Your task to perform on an android device: change the upload size in google photos Image 0: 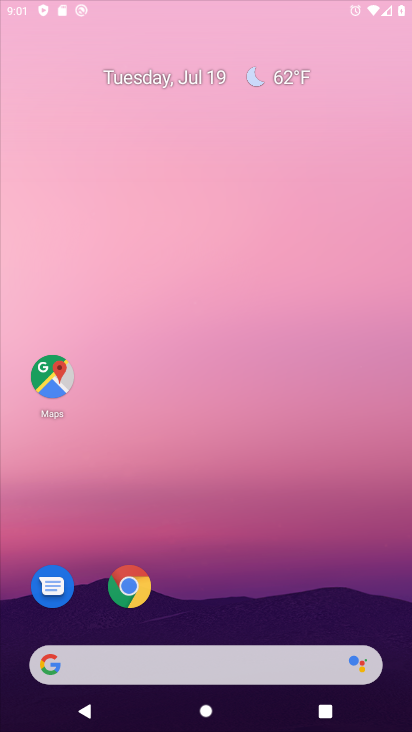
Step 0: click (222, 48)
Your task to perform on an android device: change the upload size in google photos Image 1: 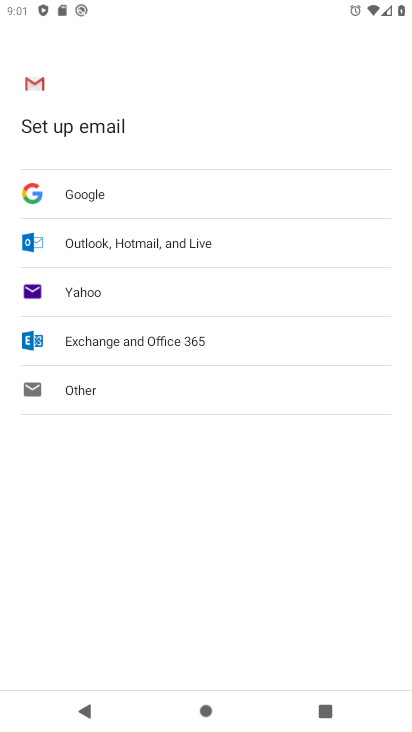
Step 1: press home button
Your task to perform on an android device: change the upload size in google photos Image 2: 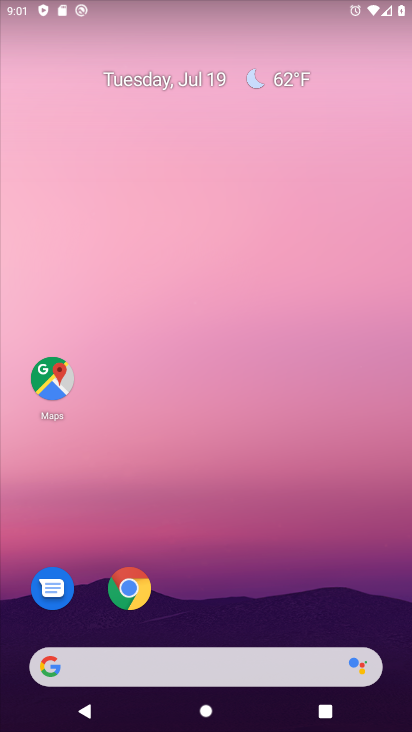
Step 2: drag from (274, 550) to (335, 9)
Your task to perform on an android device: change the upload size in google photos Image 3: 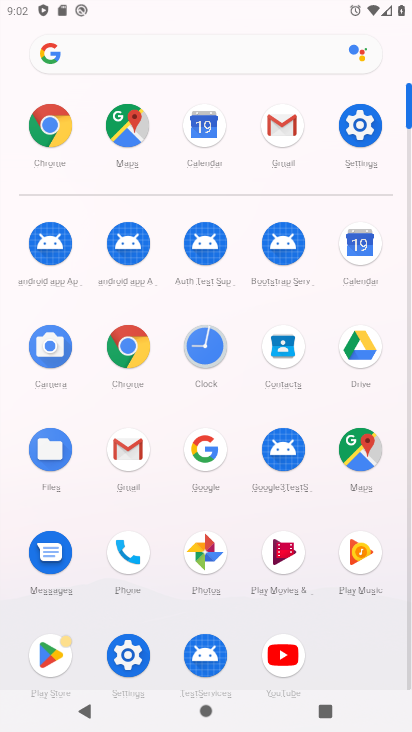
Step 3: click (203, 553)
Your task to perform on an android device: change the upload size in google photos Image 4: 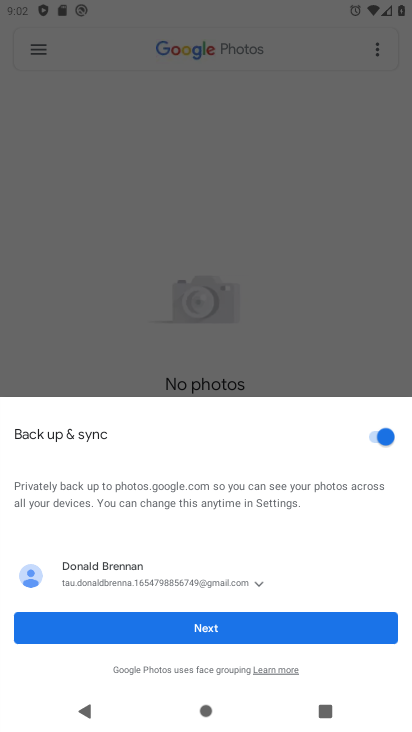
Step 4: click (212, 637)
Your task to perform on an android device: change the upload size in google photos Image 5: 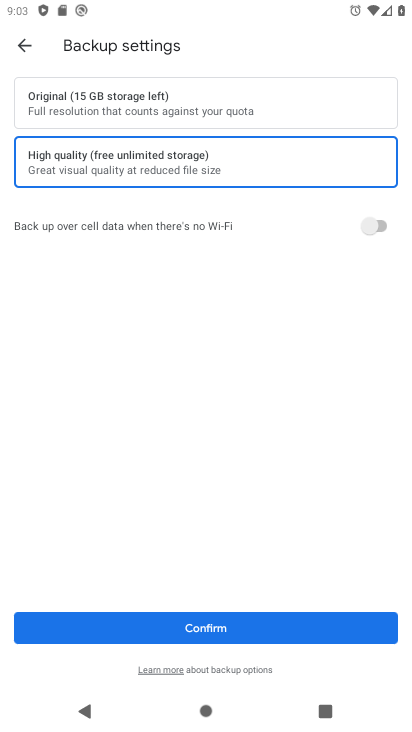
Step 5: click (124, 113)
Your task to perform on an android device: change the upload size in google photos Image 6: 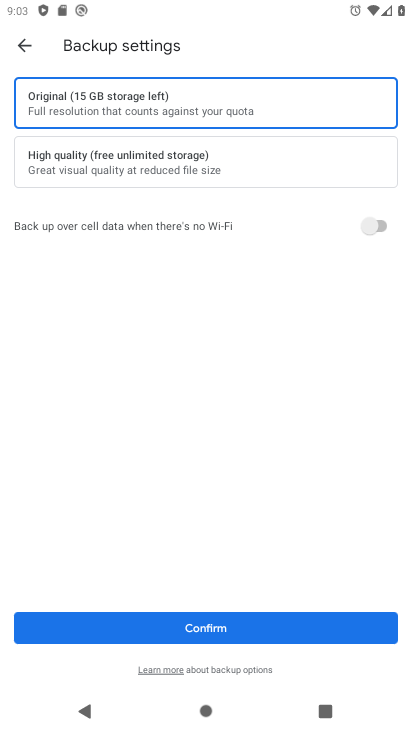
Step 6: task complete